Your task to perform on an android device: See recent photos Image 0: 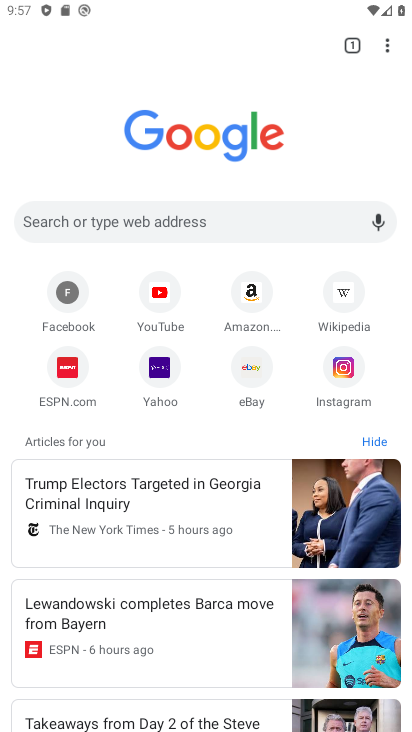
Step 0: press home button
Your task to perform on an android device: See recent photos Image 1: 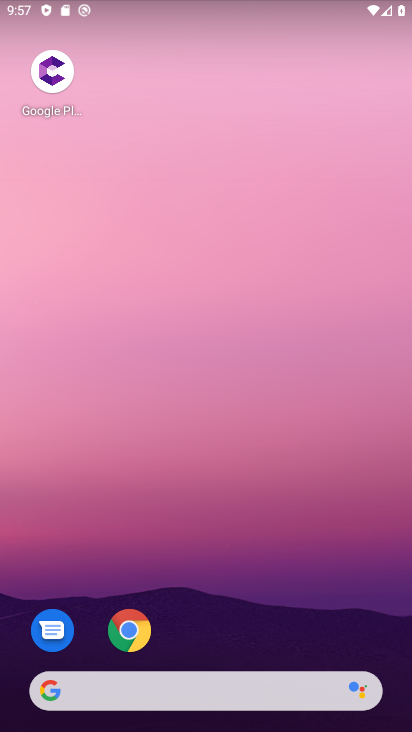
Step 1: drag from (153, 628) to (161, 163)
Your task to perform on an android device: See recent photos Image 2: 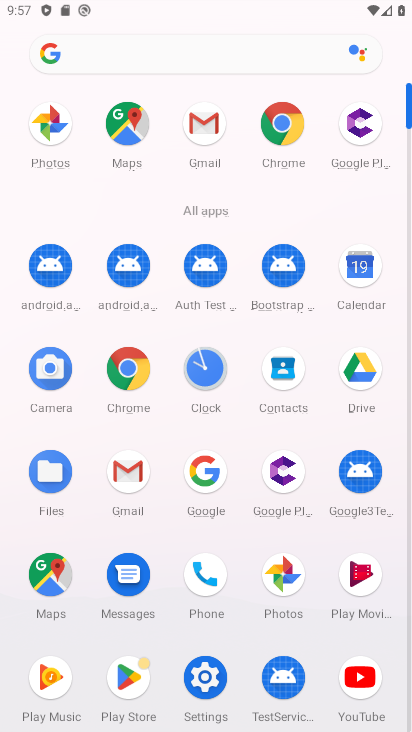
Step 2: click (272, 575)
Your task to perform on an android device: See recent photos Image 3: 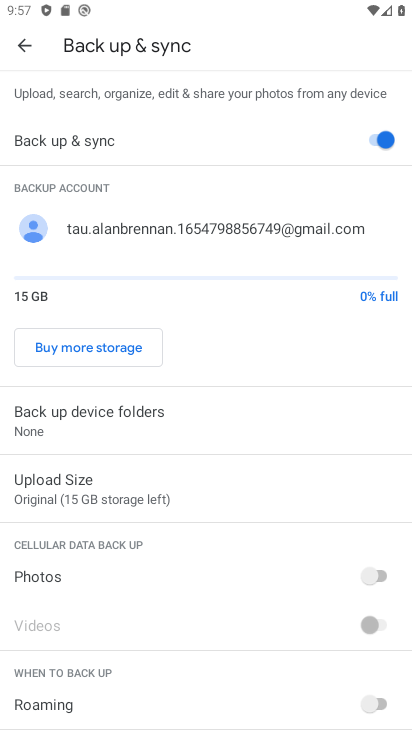
Step 3: click (22, 35)
Your task to perform on an android device: See recent photos Image 4: 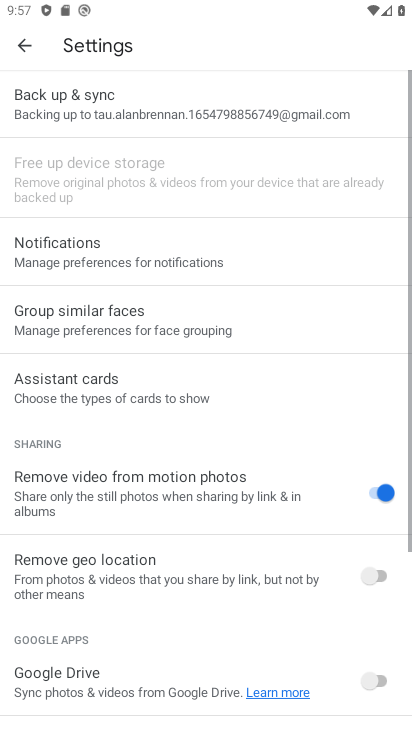
Step 4: click (23, 41)
Your task to perform on an android device: See recent photos Image 5: 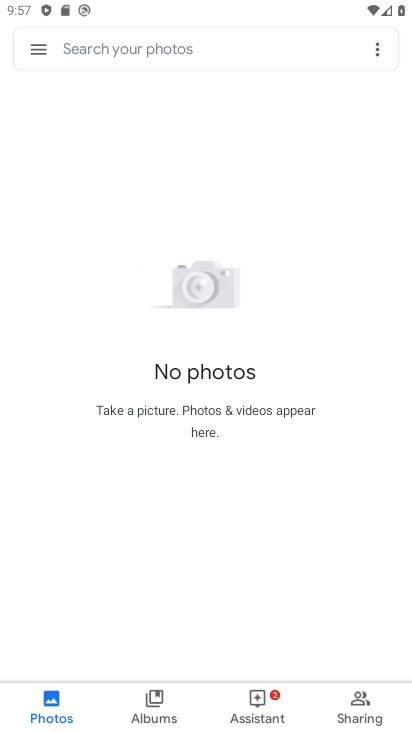
Step 5: task complete